Your task to perform on an android device: Turn off the flashlight Image 0: 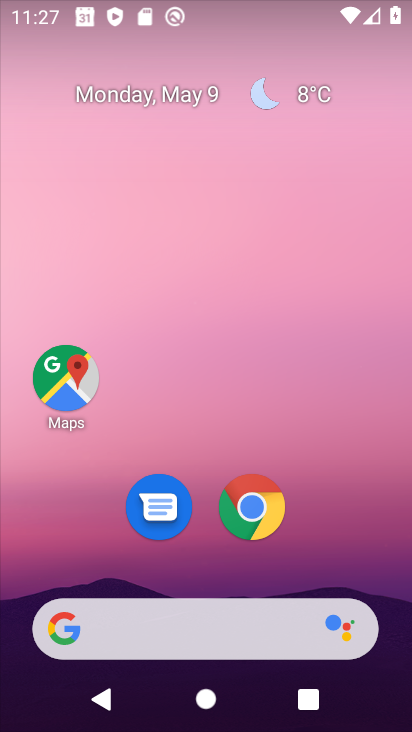
Step 0: drag from (310, 505) to (290, 69)
Your task to perform on an android device: Turn off the flashlight Image 1: 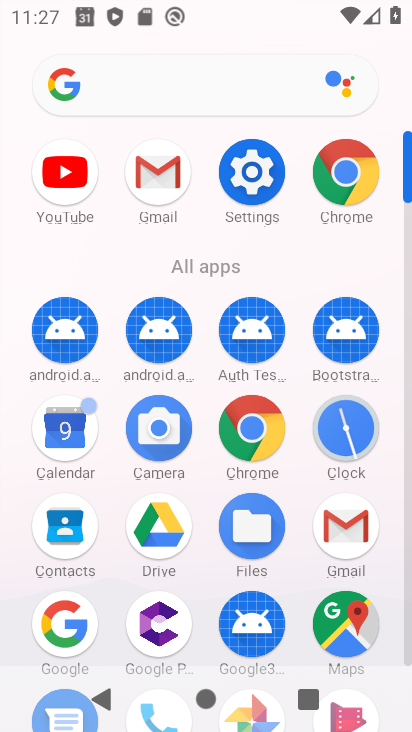
Step 1: click (253, 182)
Your task to perform on an android device: Turn off the flashlight Image 2: 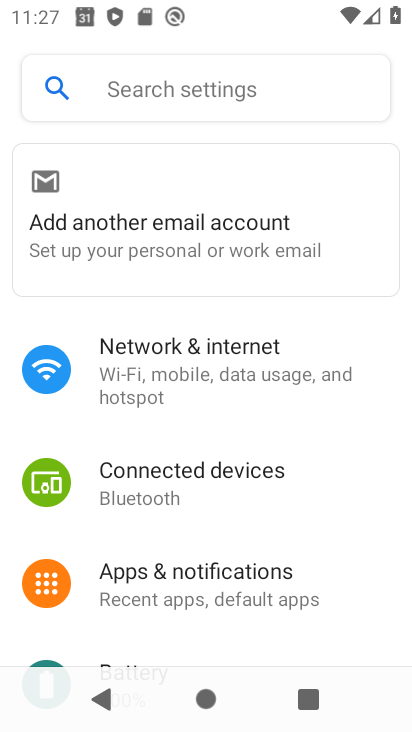
Step 2: drag from (255, 546) to (231, 186)
Your task to perform on an android device: Turn off the flashlight Image 3: 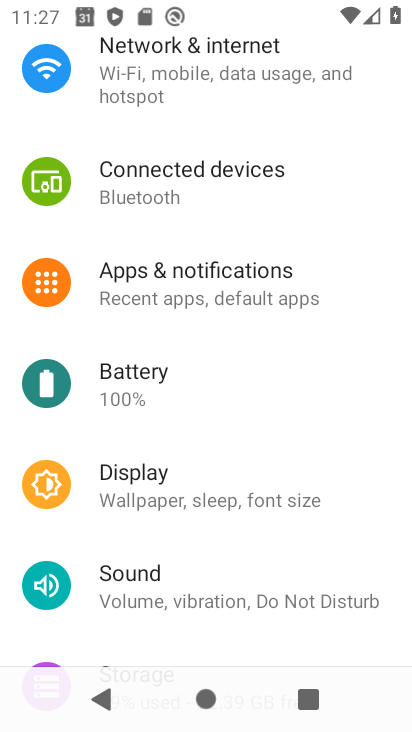
Step 3: drag from (273, 578) to (260, 238)
Your task to perform on an android device: Turn off the flashlight Image 4: 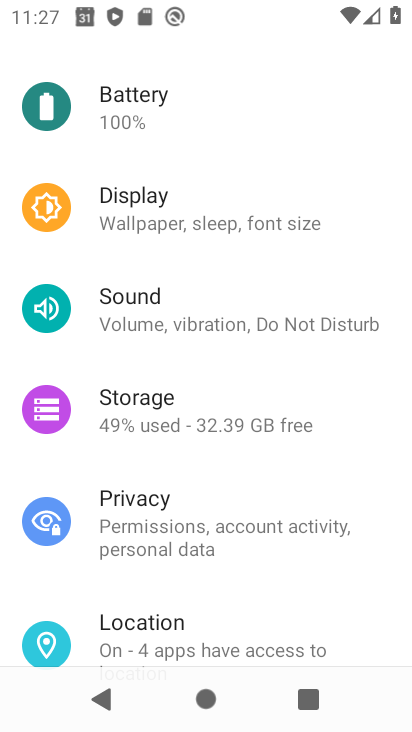
Step 4: drag from (287, 604) to (275, 699)
Your task to perform on an android device: Turn off the flashlight Image 5: 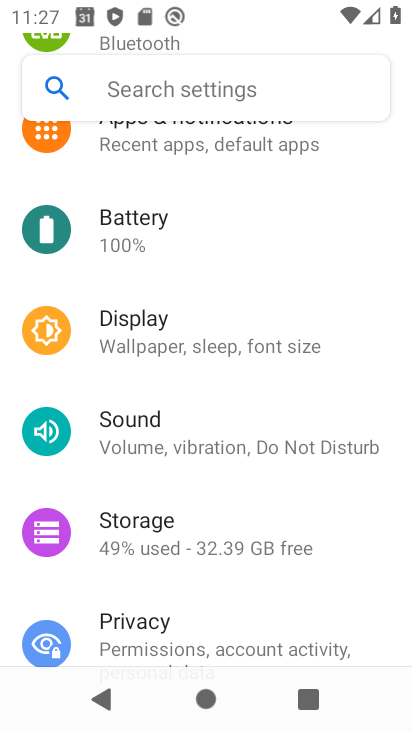
Step 5: click (250, 331)
Your task to perform on an android device: Turn off the flashlight Image 6: 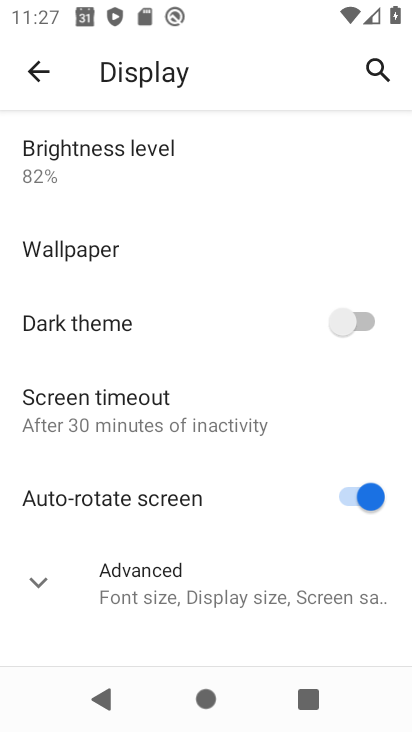
Step 6: click (262, 589)
Your task to perform on an android device: Turn off the flashlight Image 7: 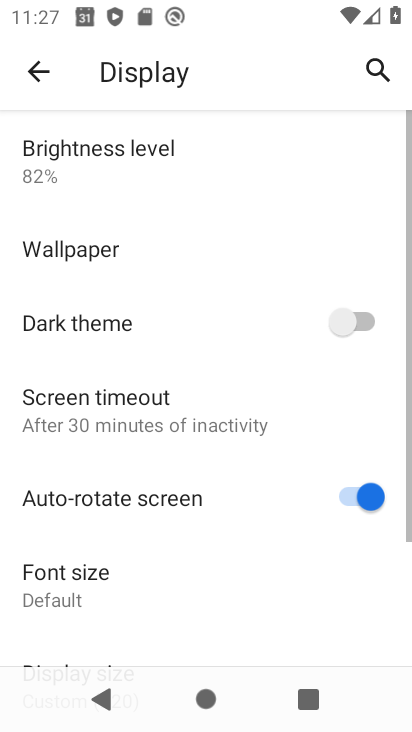
Step 7: task complete